Your task to perform on an android device: Open accessibility settings Image 0: 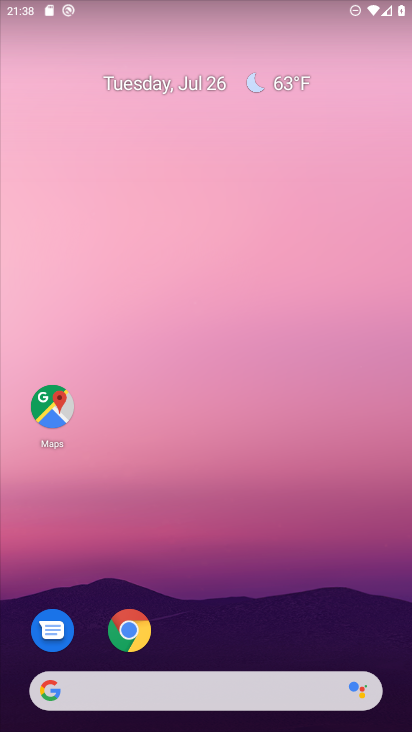
Step 0: drag from (271, 580) to (209, 132)
Your task to perform on an android device: Open accessibility settings Image 1: 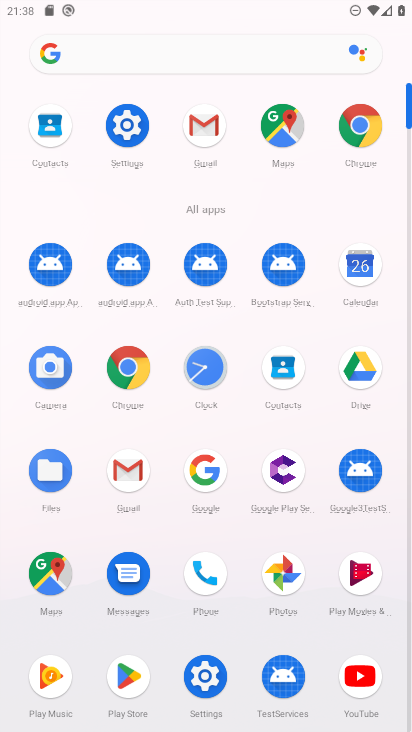
Step 1: click (121, 134)
Your task to perform on an android device: Open accessibility settings Image 2: 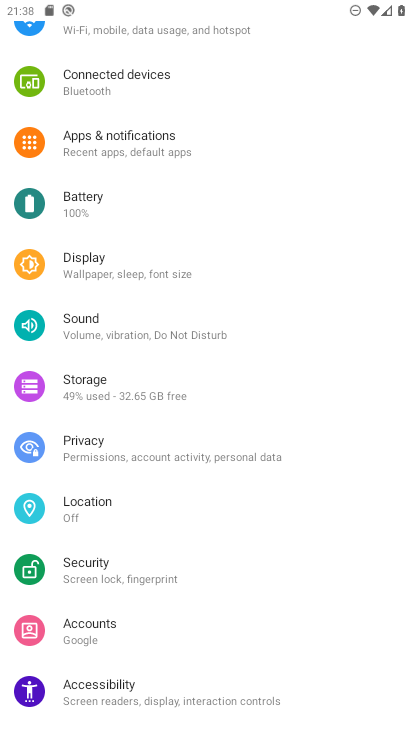
Step 2: click (120, 684)
Your task to perform on an android device: Open accessibility settings Image 3: 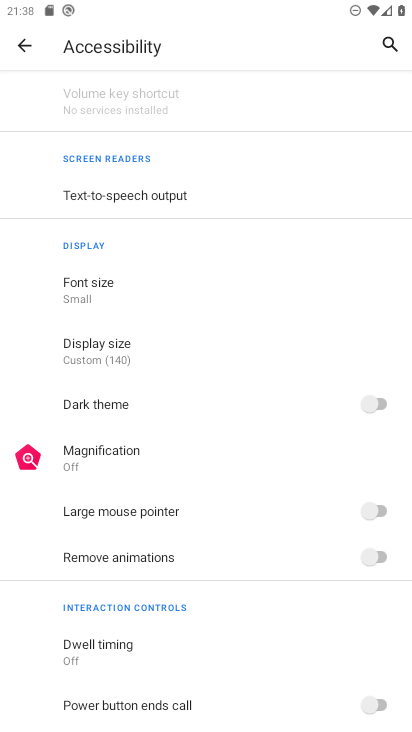
Step 3: task complete